Your task to perform on an android device: Open Amazon Image 0: 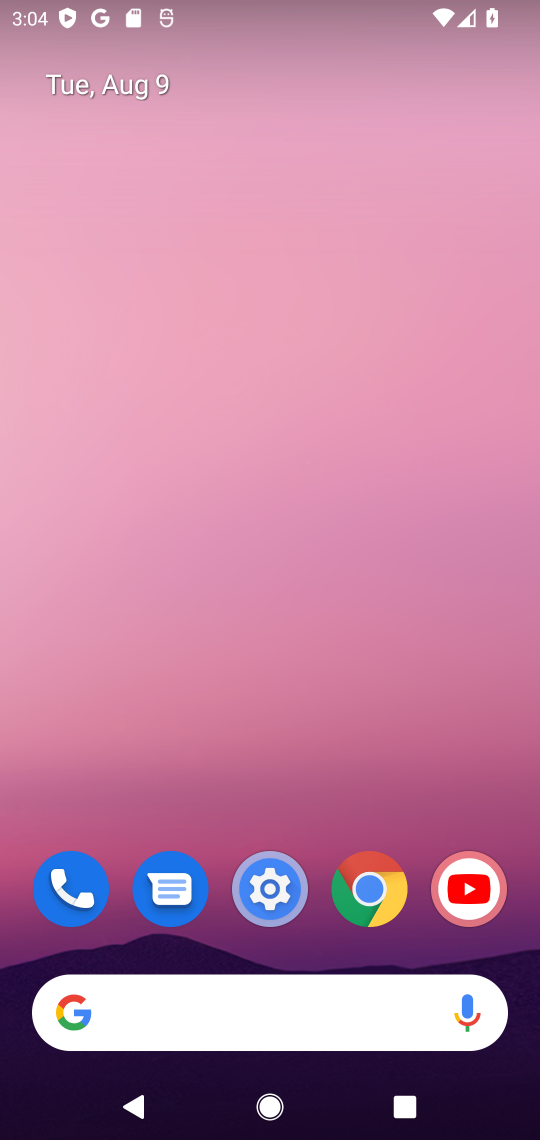
Step 0: click (373, 887)
Your task to perform on an android device: Open Amazon Image 1: 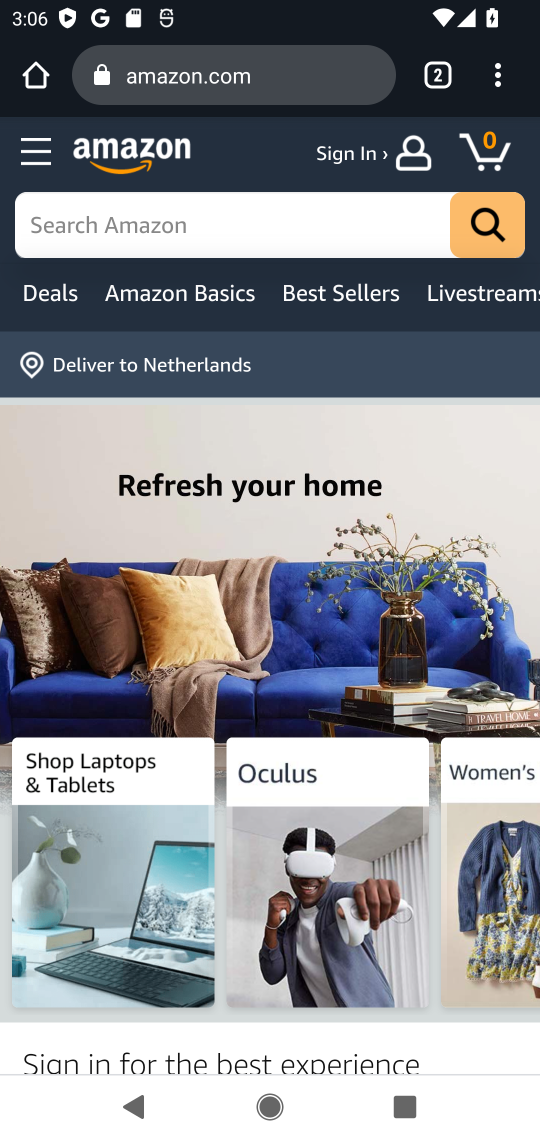
Step 1: task complete